Your task to perform on an android device: install app "Adobe Acrobat Reader" Image 0: 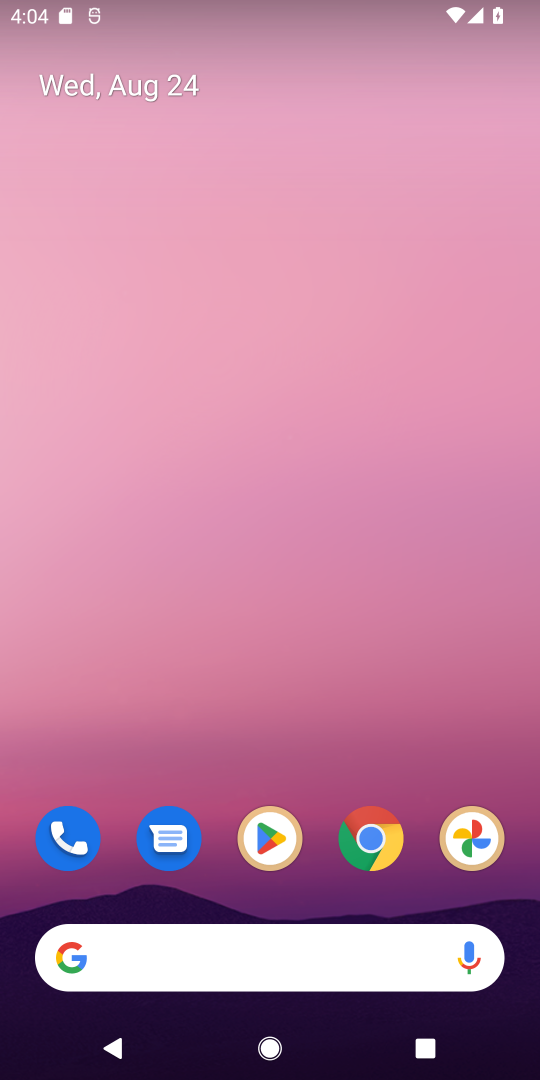
Step 0: click (262, 826)
Your task to perform on an android device: install app "Adobe Acrobat Reader" Image 1: 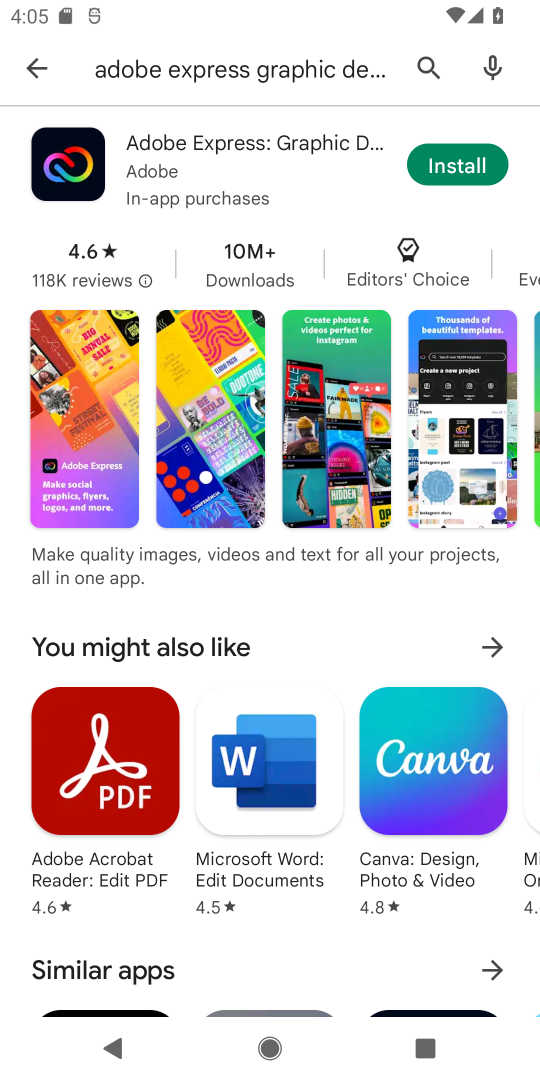
Step 1: click (411, 66)
Your task to perform on an android device: install app "Adobe Acrobat Reader" Image 2: 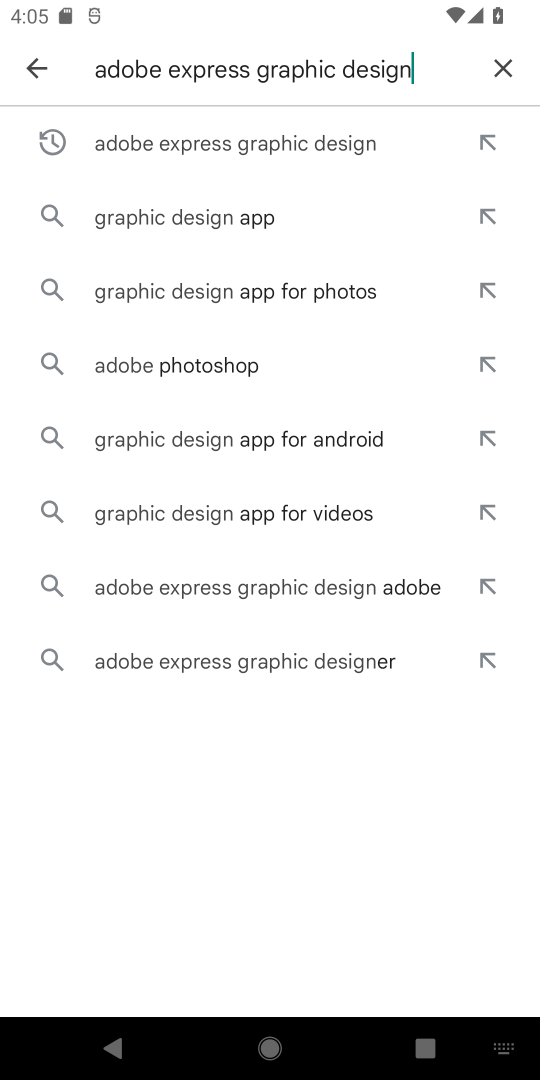
Step 2: click (508, 64)
Your task to perform on an android device: install app "Adobe Acrobat Reader" Image 3: 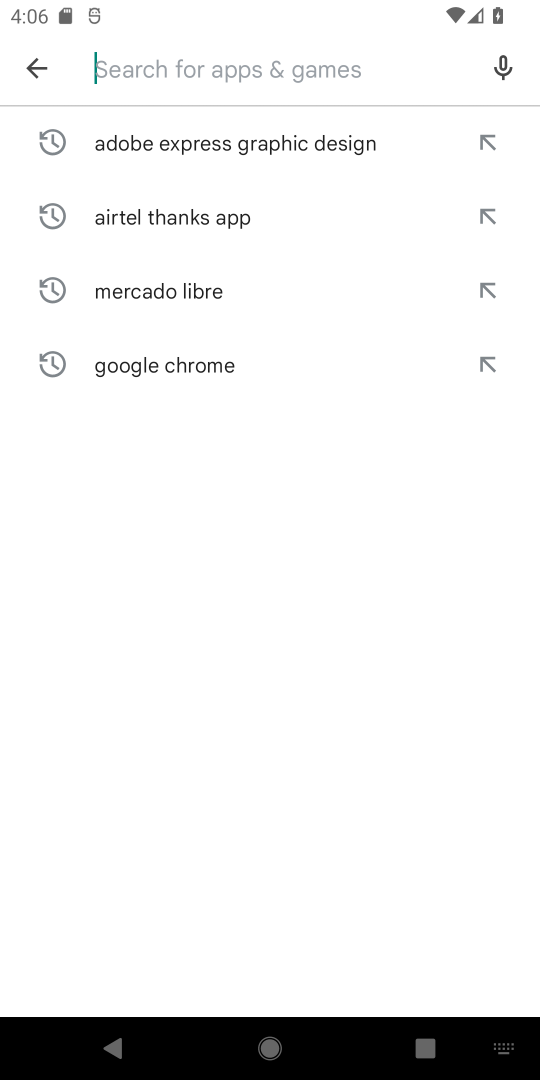
Step 3: type "Adobe Acrobat Reader"
Your task to perform on an android device: install app "Adobe Acrobat Reader" Image 4: 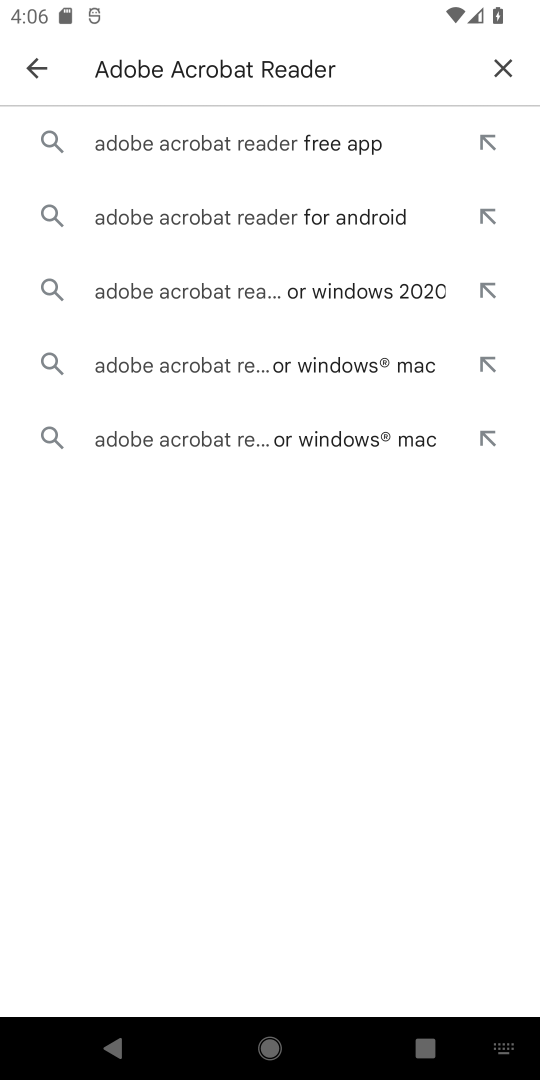
Step 4: click (186, 147)
Your task to perform on an android device: install app "Adobe Acrobat Reader" Image 5: 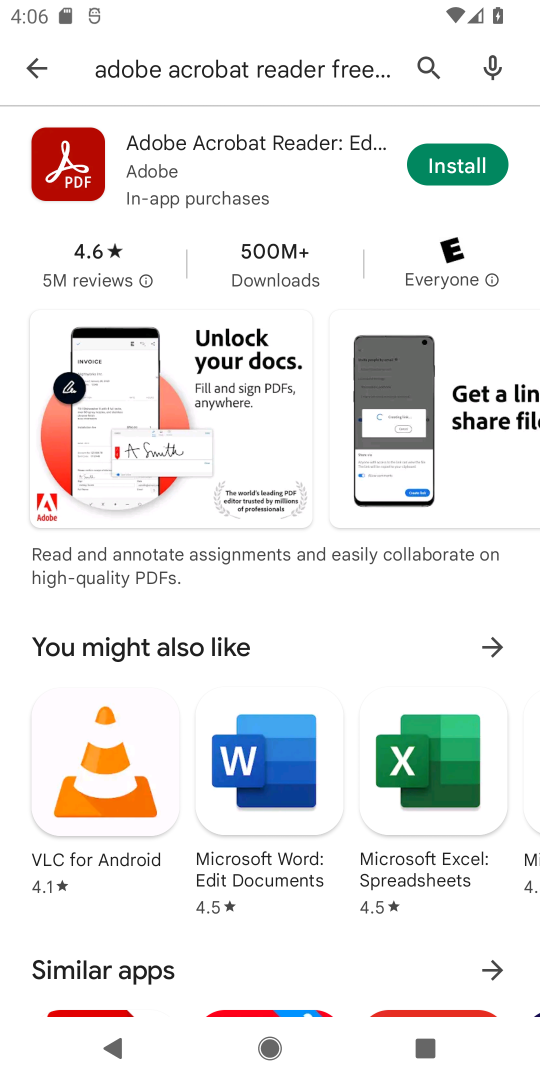
Step 5: click (484, 168)
Your task to perform on an android device: install app "Adobe Acrobat Reader" Image 6: 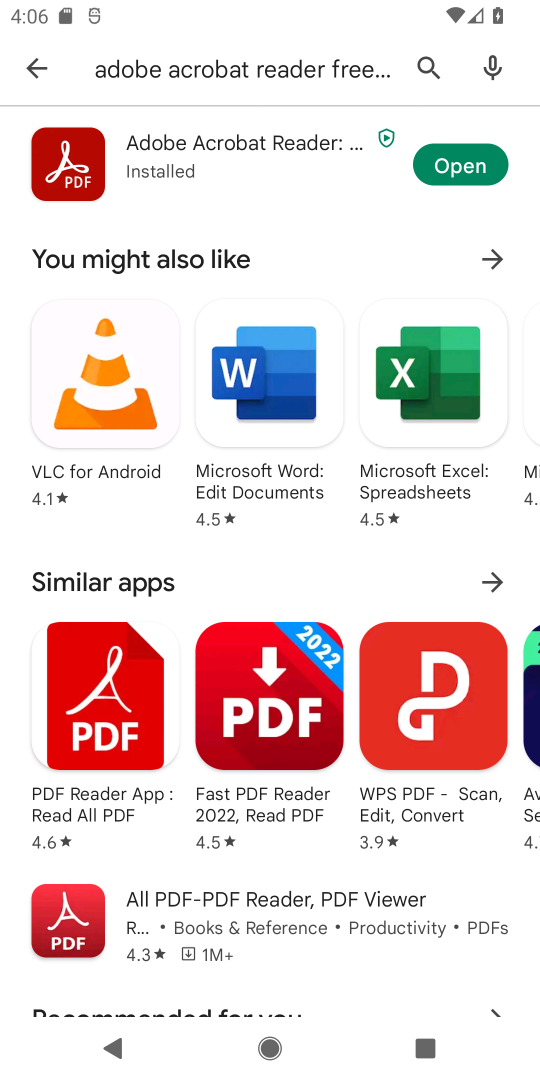
Step 6: click (449, 175)
Your task to perform on an android device: install app "Adobe Acrobat Reader" Image 7: 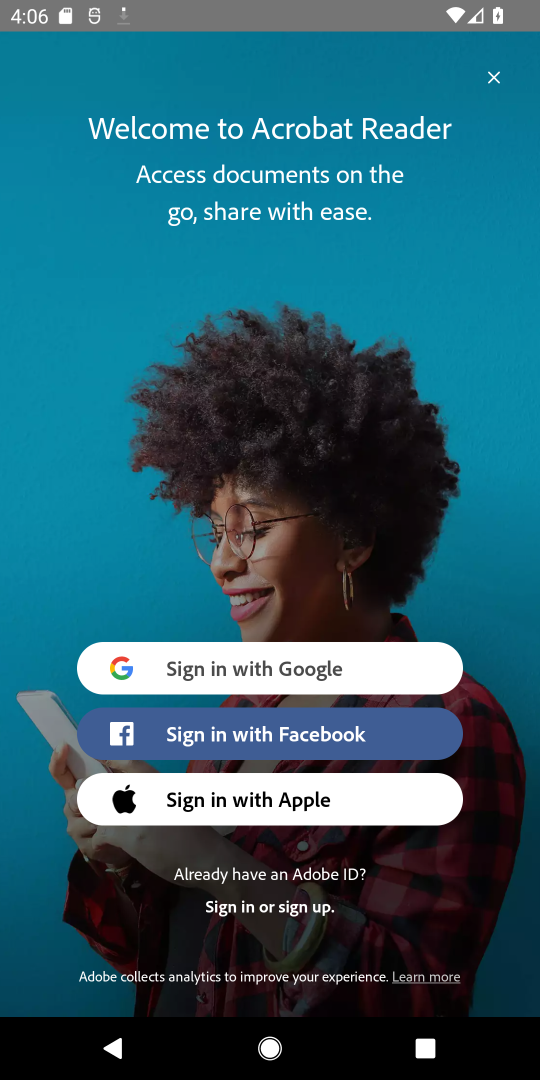
Step 7: click (284, 677)
Your task to perform on an android device: install app "Adobe Acrobat Reader" Image 8: 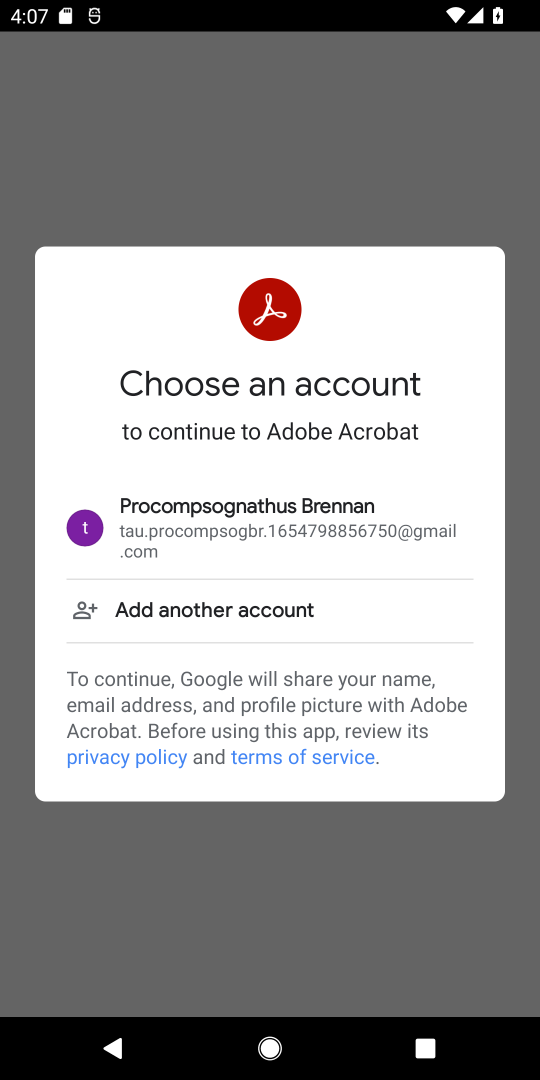
Step 8: click (222, 535)
Your task to perform on an android device: install app "Adobe Acrobat Reader" Image 9: 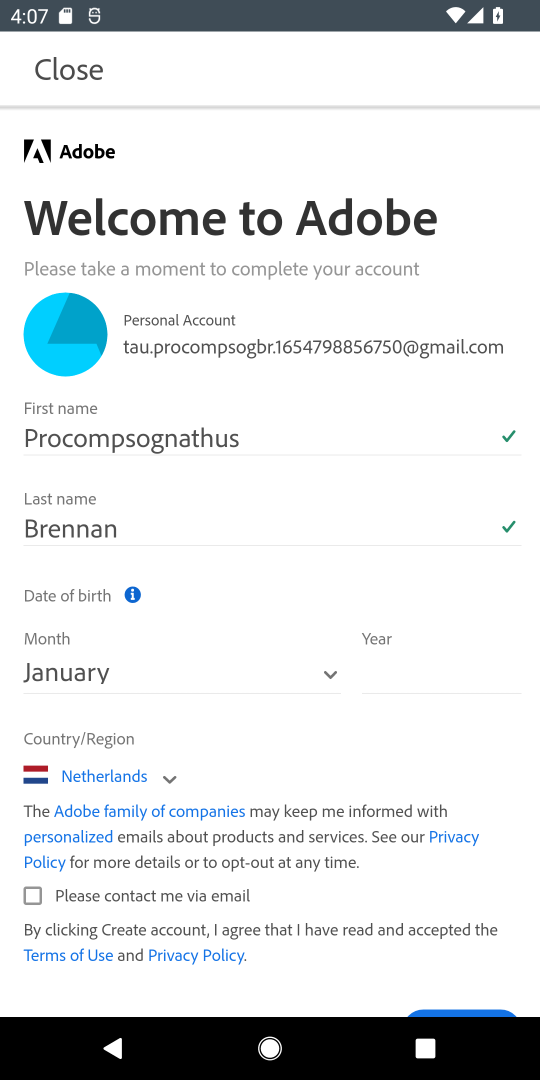
Step 9: click (424, 676)
Your task to perform on an android device: install app "Adobe Acrobat Reader" Image 10: 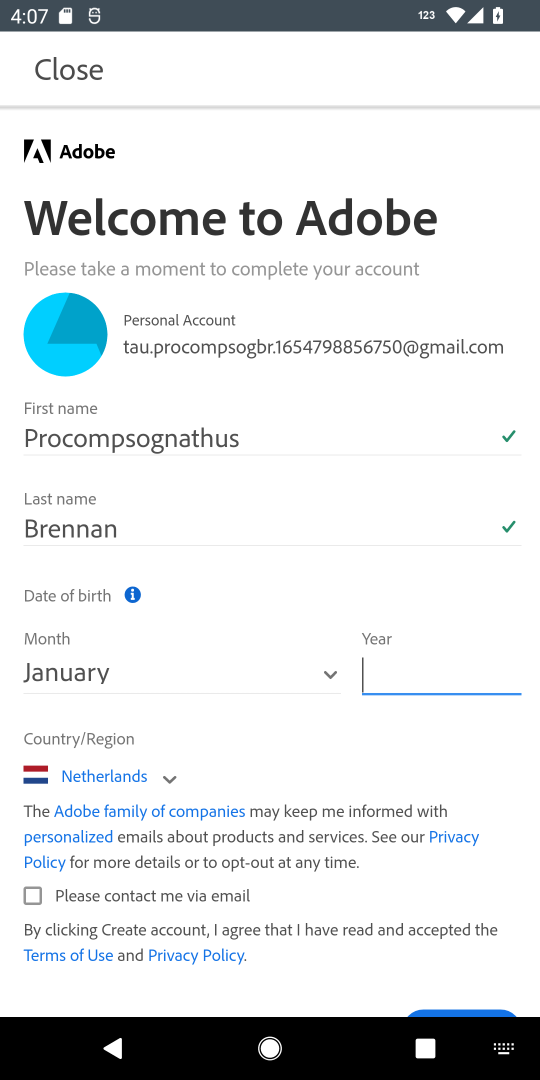
Step 10: type "1993"
Your task to perform on an android device: install app "Adobe Acrobat Reader" Image 11: 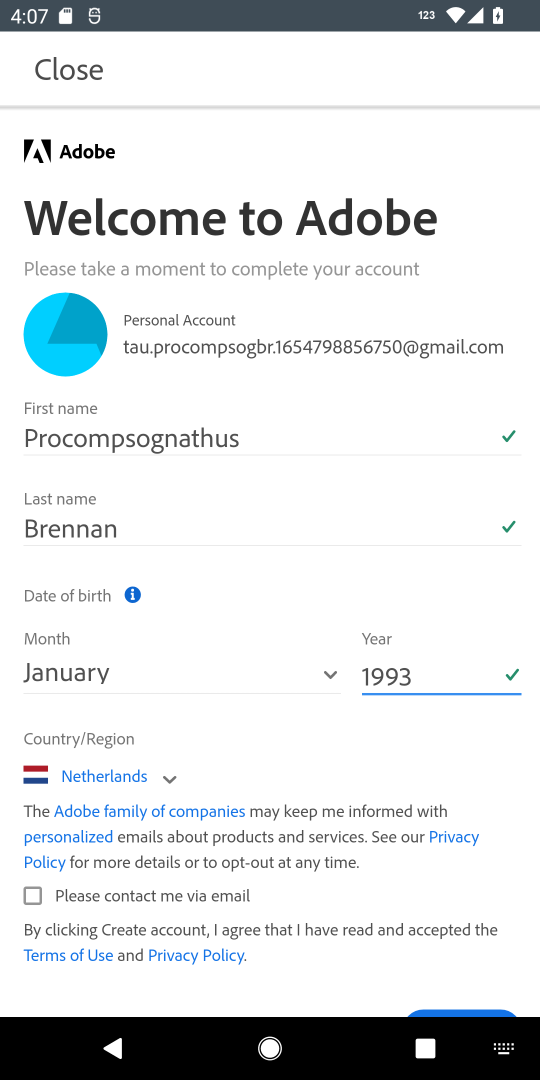
Step 11: drag from (342, 916) to (359, 384)
Your task to perform on an android device: install app "Adobe Acrobat Reader" Image 12: 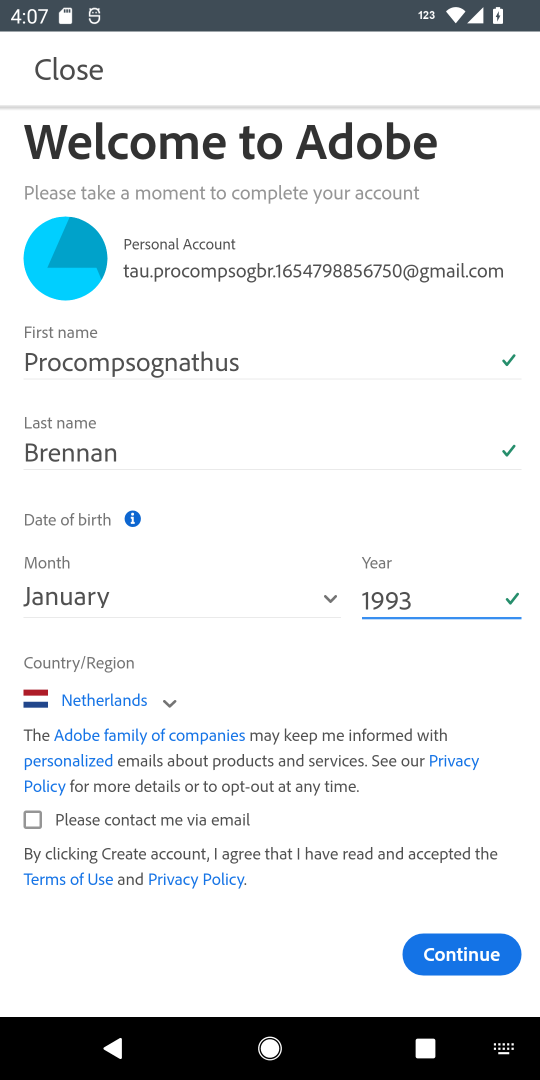
Step 12: click (456, 955)
Your task to perform on an android device: install app "Adobe Acrobat Reader" Image 13: 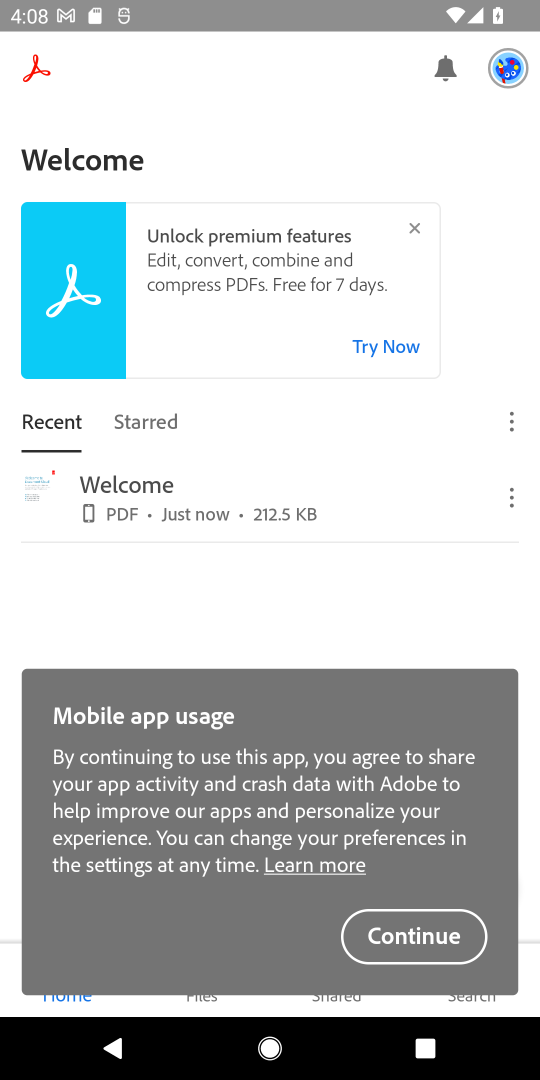
Step 13: task complete